Your task to perform on an android device: turn on showing notifications on the lock screen Image 0: 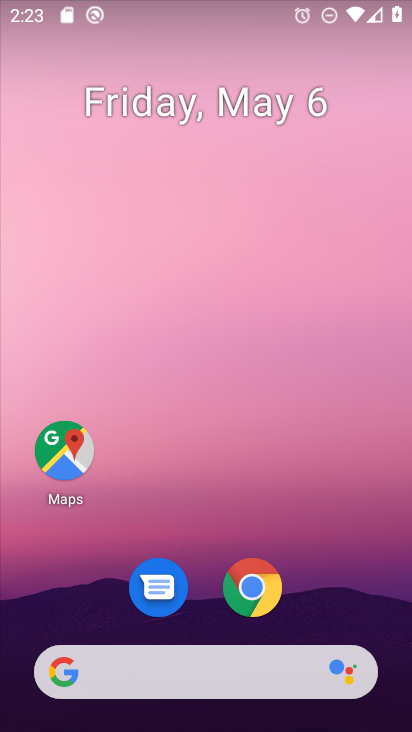
Step 0: drag from (318, 608) to (341, 32)
Your task to perform on an android device: turn on showing notifications on the lock screen Image 1: 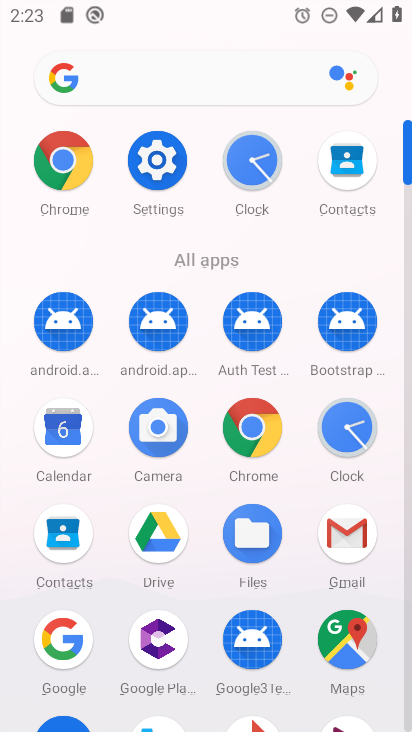
Step 1: click (151, 155)
Your task to perform on an android device: turn on showing notifications on the lock screen Image 2: 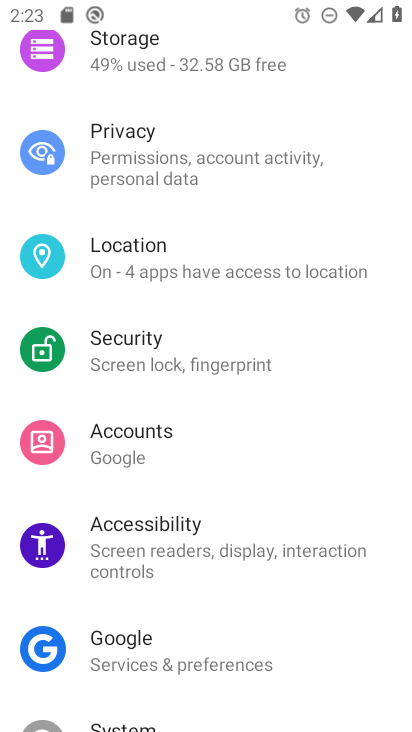
Step 2: drag from (197, 208) to (185, 603)
Your task to perform on an android device: turn on showing notifications on the lock screen Image 3: 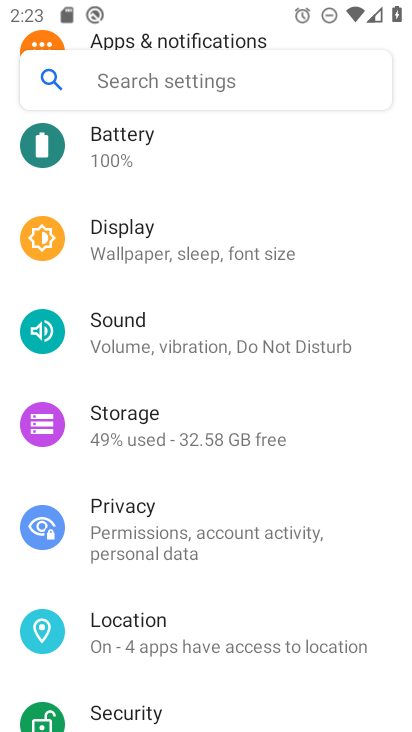
Step 3: drag from (211, 190) to (185, 602)
Your task to perform on an android device: turn on showing notifications on the lock screen Image 4: 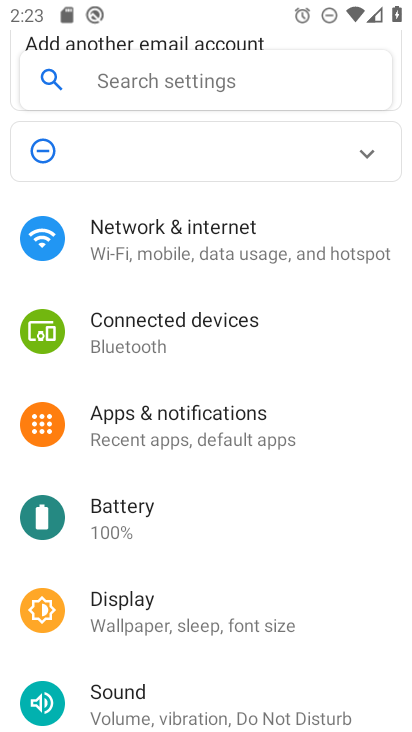
Step 4: click (215, 416)
Your task to perform on an android device: turn on showing notifications on the lock screen Image 5: 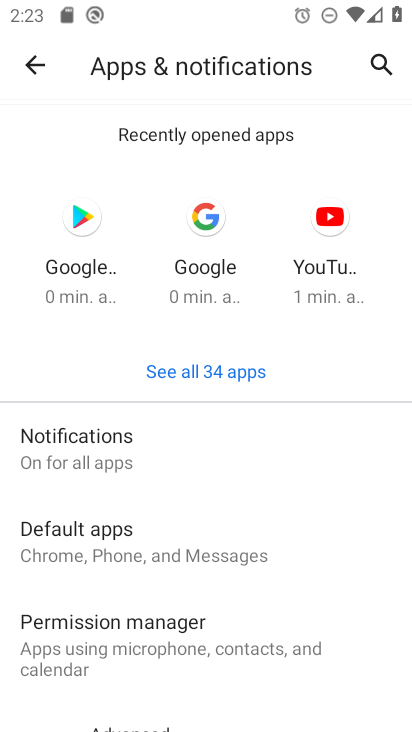
Step 5: drag from (205, 517) to (220, 273)
Your task to perform on an android device: turn on showing notifications on the lock screen Image 6: 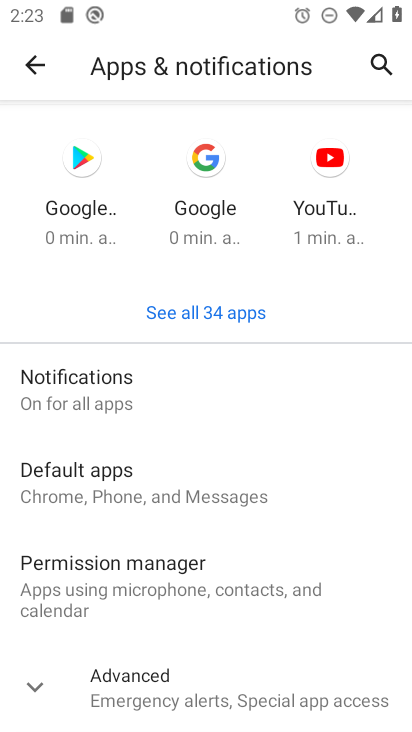
Step 6: click (110, 377)
Your task to perform on an android device: turn on showing notifications on the lock screen Image 7: 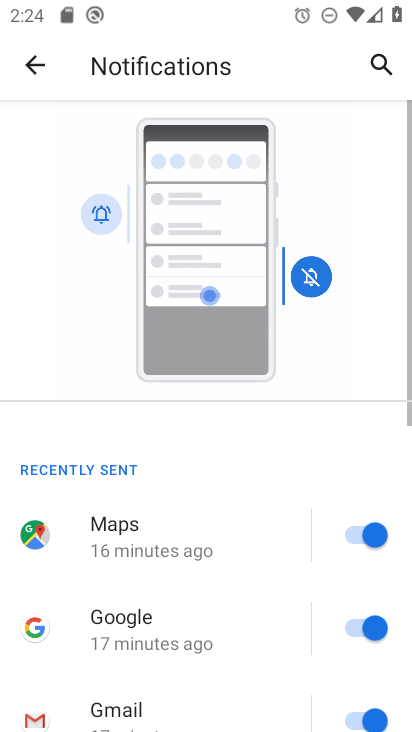
Step 7: drag from (241, 563) to (302, 107)
Your task to perform on an android device: turn on showing notifications on the lock screen Image 8: 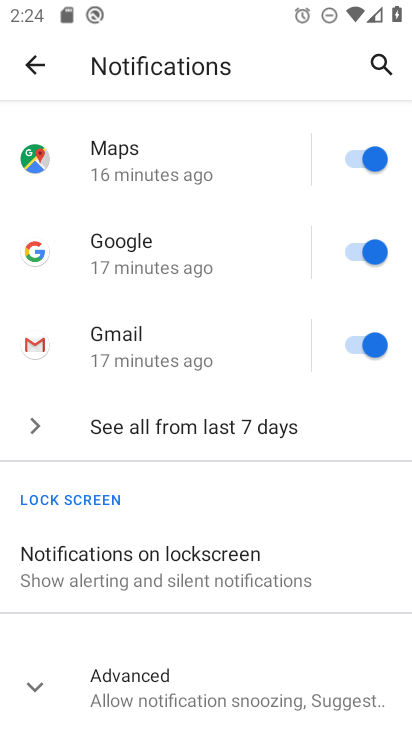
Step 8: click (252, 574)
Your task to perform on an android device: turn on showing notifications on the lock screen Image 9: 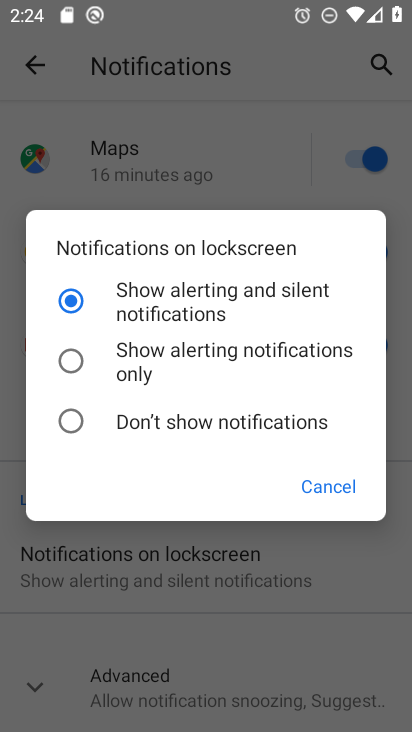
Step 9: click (335, 471)
Your task to perform on an android device: turn on showing notifications on the lock screen Image 10: 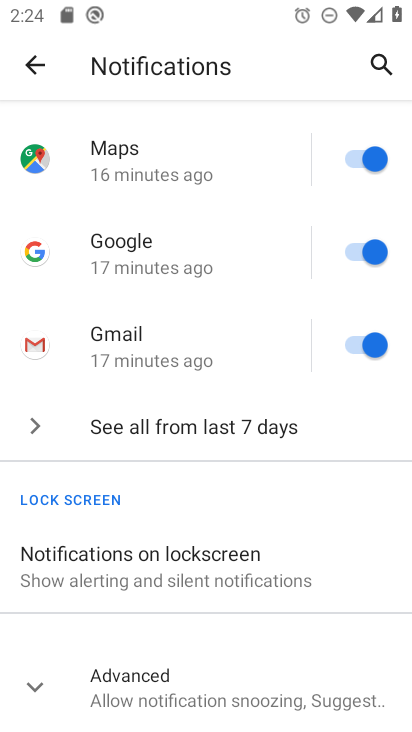
Step 10: task complete